Your task to perform on an android device: change text size in settings app Image 0: 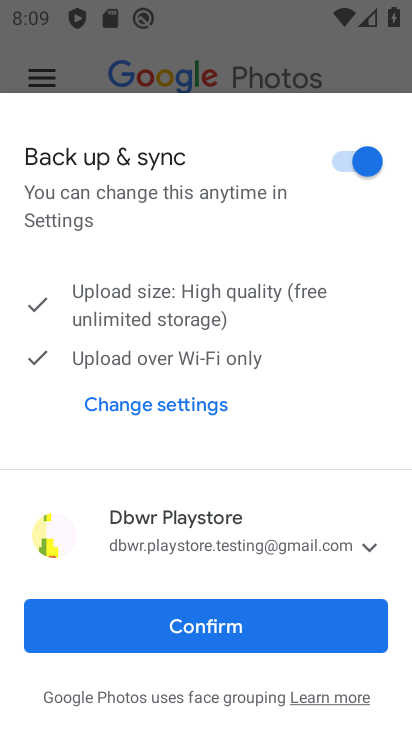
Step 0: press home button
Your task to perform on an android device: change text size in settings app Image 1: 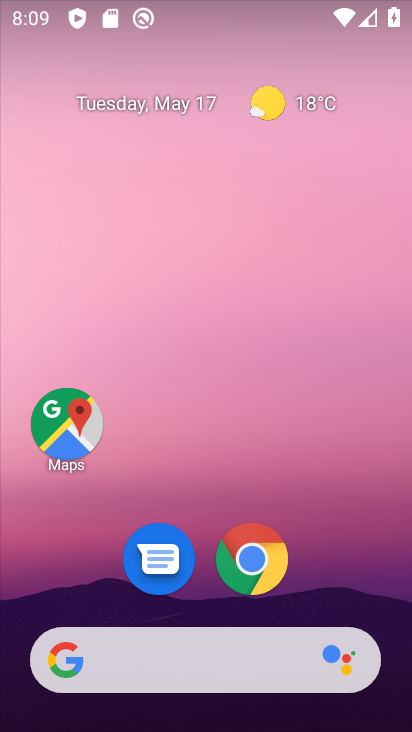
Step 1: drag from (209, 673) to (253, 307)
Your task to perform on an android device: change text size in settings app Image 2: 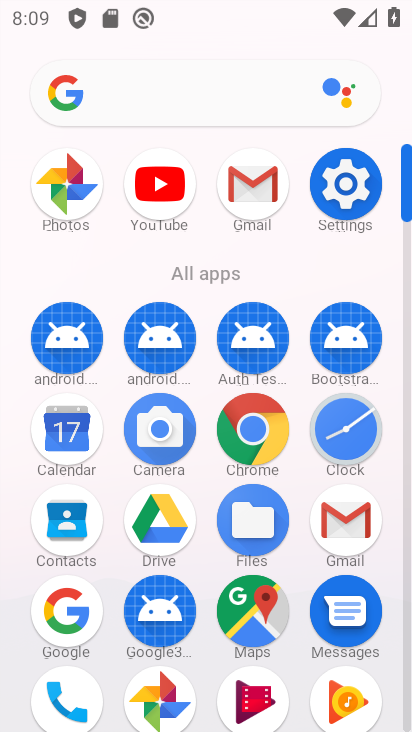
Step 2: click (342, 187)
Your task to perform on an android device: change text size in settings app Image 3: 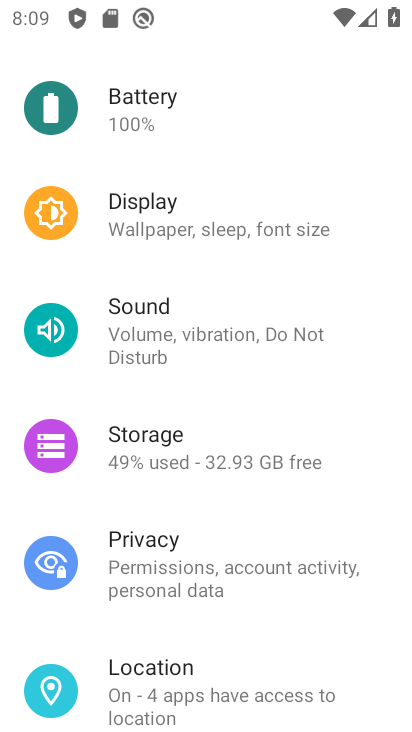
Step 3: click (180, 215)
Your task to perform on an android device: change text size in settings app Image 4: 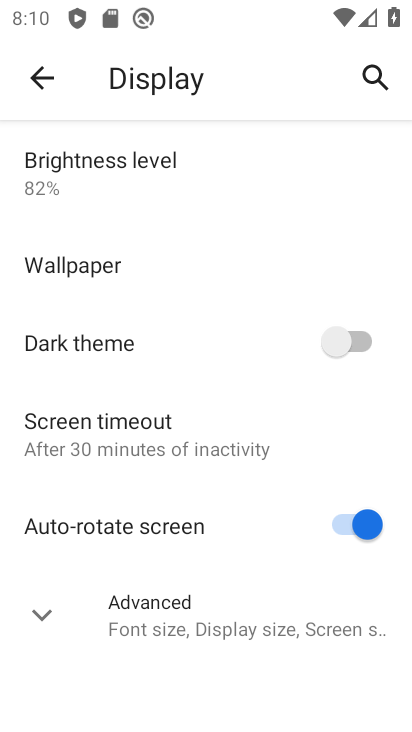
Step 4: click (140, 608)
Your task to perform on an android device: change text size in settings app Image 5: 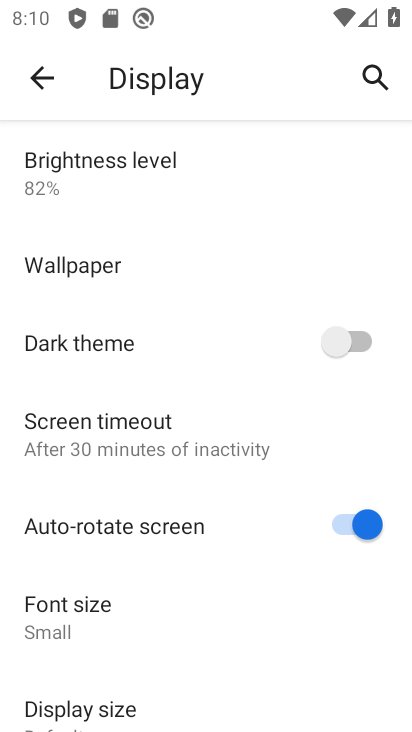
Step 5: click (133, 619)
Your task to perform on an android device: change text size in settings app Image 6: 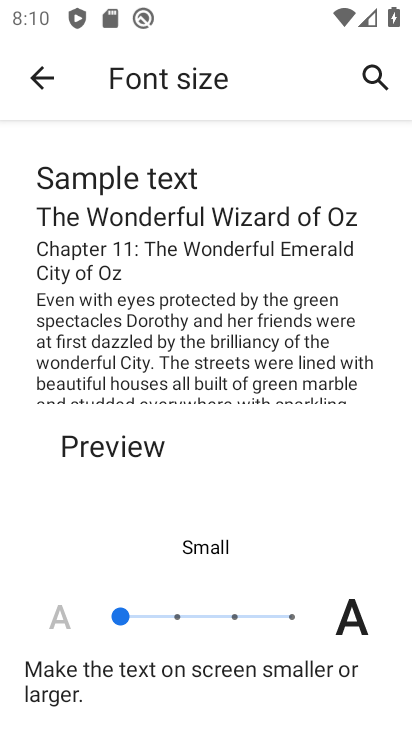
Step 6: click (170, 625)
Your task to perform on an android device: change text size in settings app Image 7: 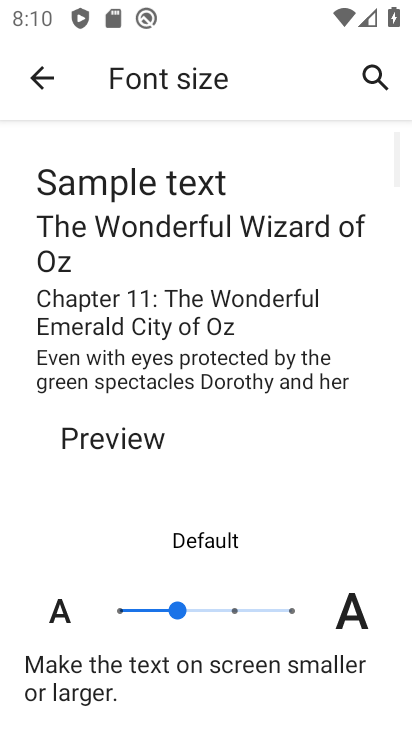
Step 7: task complete